Your task to perform on an android device: change your default location settings in chrome Image 0: 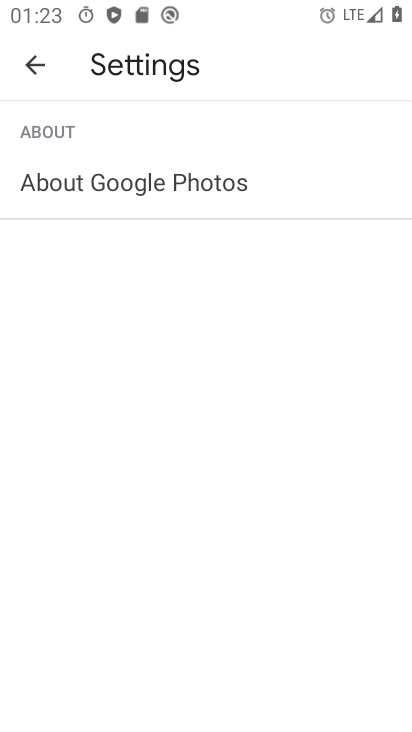
Step 0: press home button
Your task to perform on an android device: change your default location settings in chrome Image 1: 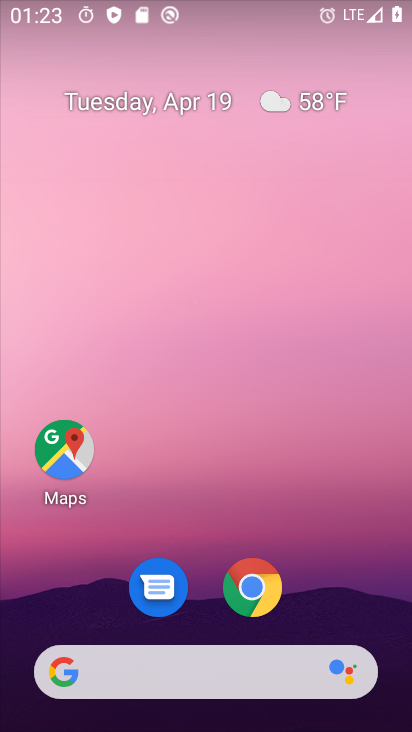
Step 1: click (234, 587)
Your task to perform on an android device: change your default location settings in chrome Image 2: 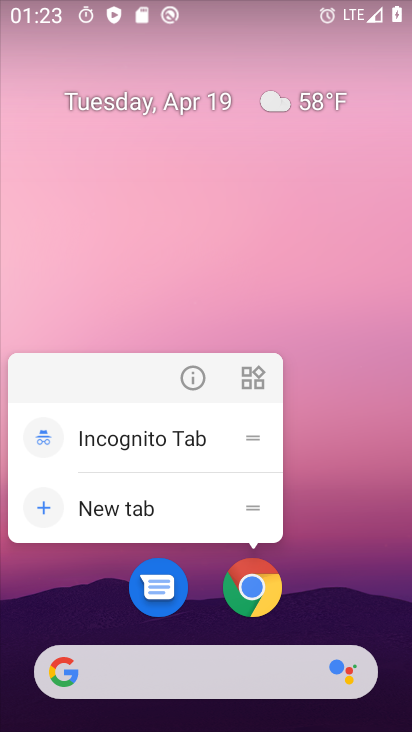
Step 2: click (265, 601)
Your task to perform on an android device: change your default location settings in chrome Image 3: 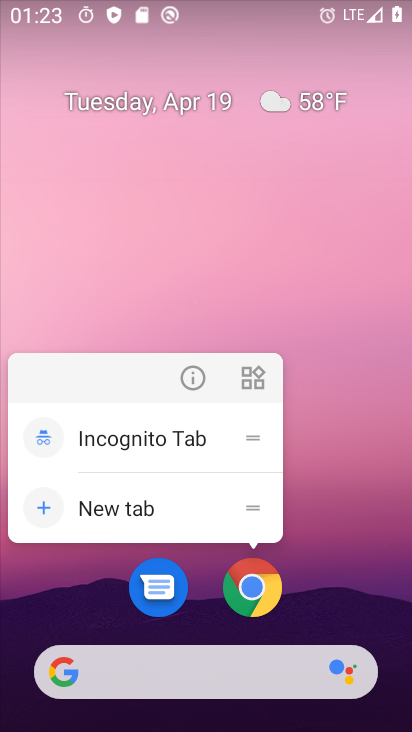
Step 3: click (270, 598)
Your task to perform on an android device: change your default location settings in chrome Image 4: 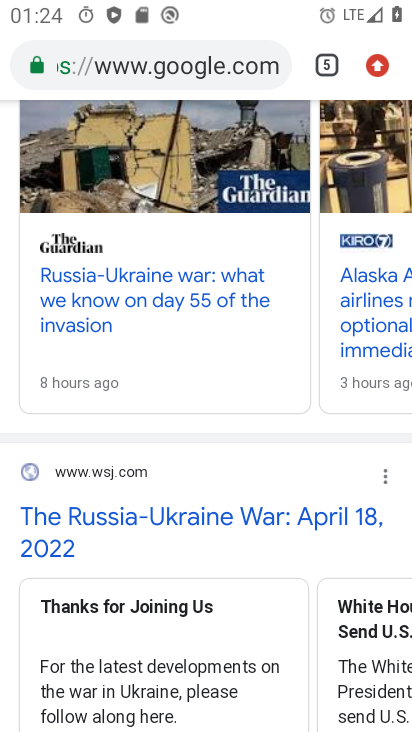
Step 4: click (381, 69)
Your task to perform on an android device: change your default location settings in chrome Image 5: 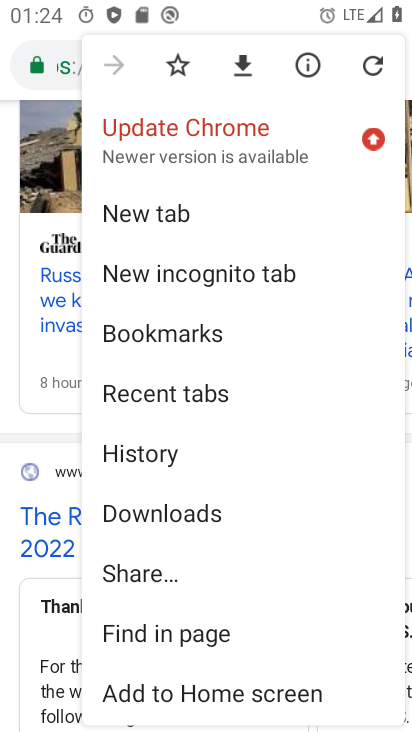
Step 5: drag from (267, 552) to (289, 280)
Your task to perform on an android device: change your default location settings in chrome Image 6: 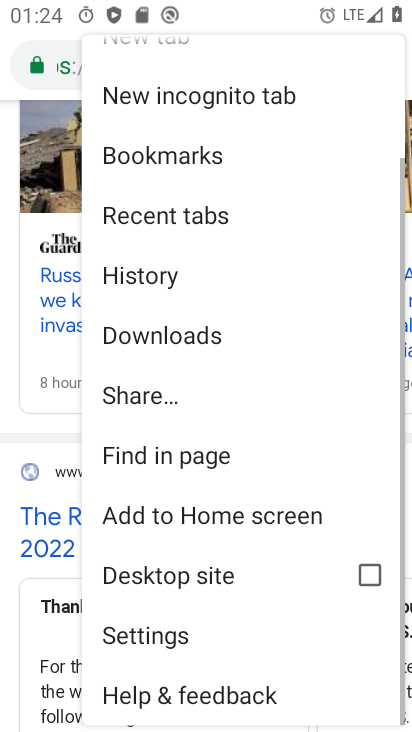
Step 6: click (195, 631)
Your task to perform on an android device: change your default location settings in chrome Image 7: 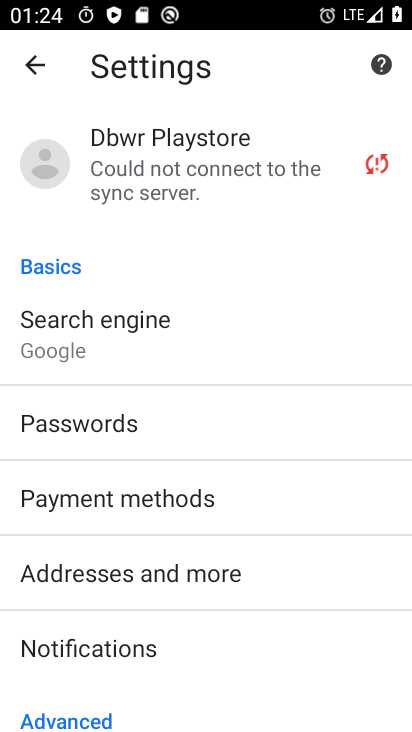
Step 7: drag from (253, 632) to (303, 386)
Your task to perform on an android device: change your default location settings in chrome Image 8: 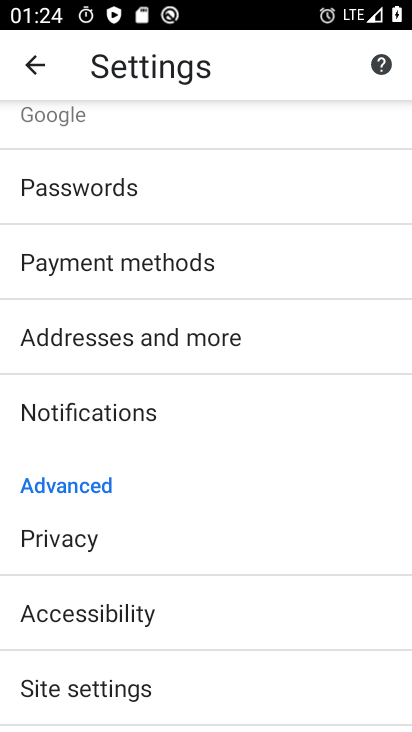
Step 8: click (150, 699)
Your task to perform on an android device: change your default location settings in chrome Image 9: 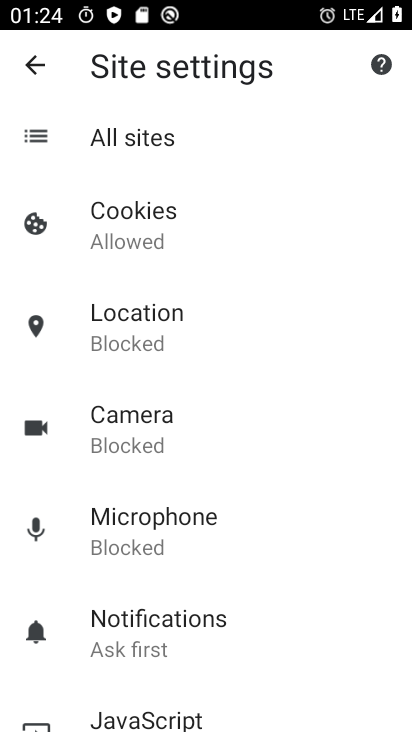
Step 9: click (204, 301)
Your task to perform on an android device: change your default location settings in chrome Image 10: 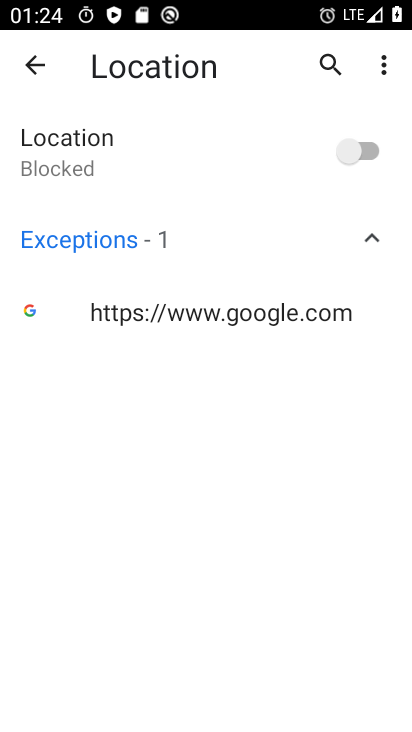
Step 10: click (358, 141)
Your task to perform on an android device: change your default location settings in chrome Image 11: 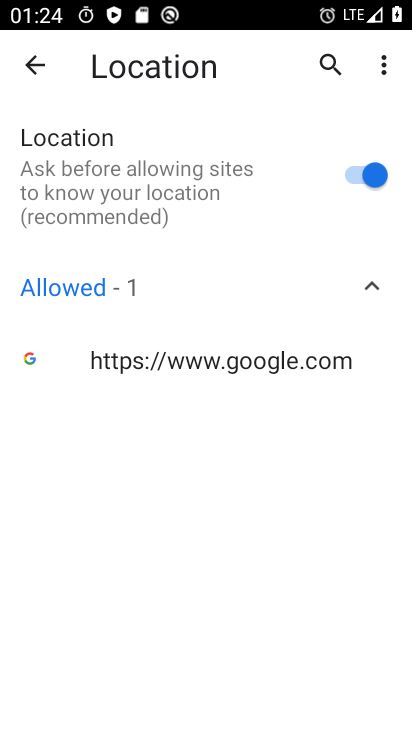
Step 11: task complete